Your task to perform on an android device: Go to ESPN.com Image 0: 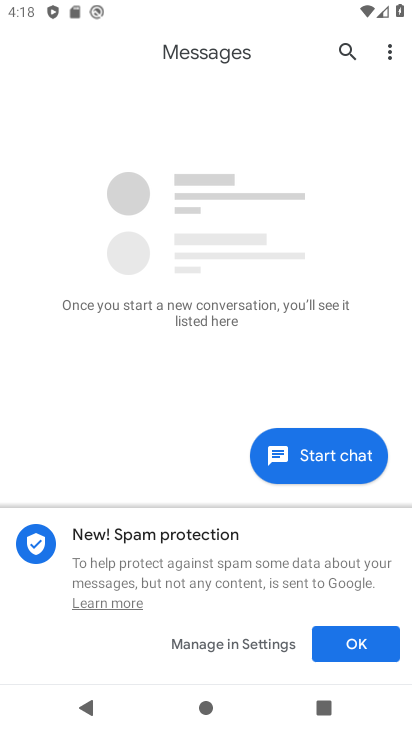
Step 0: press back button
Your task to perform on an android device: Go to ESPN.com Image 1: 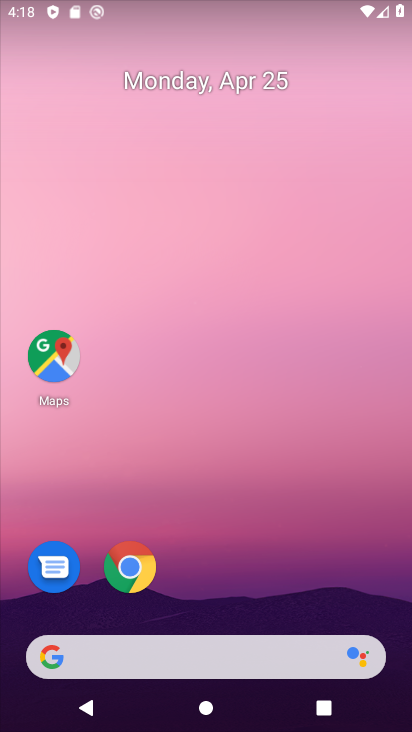
Step 1: click (119, 559)
Your task to perform on an android device: Go to ESPN.com Image 2: 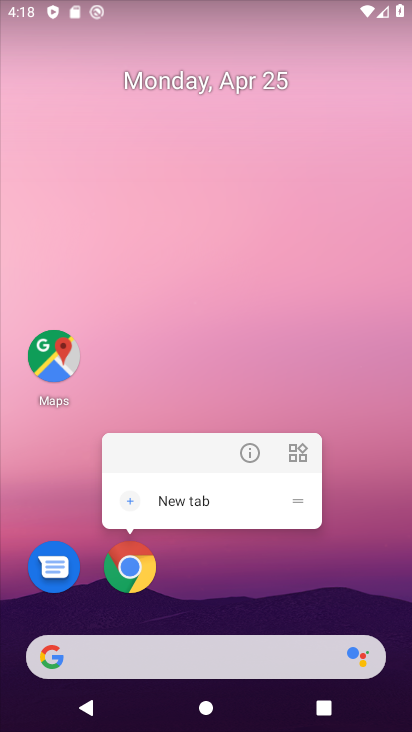
Step 2: click (136, 576)
Your task to perform on an android device: Go to ESPN.com Image 3: 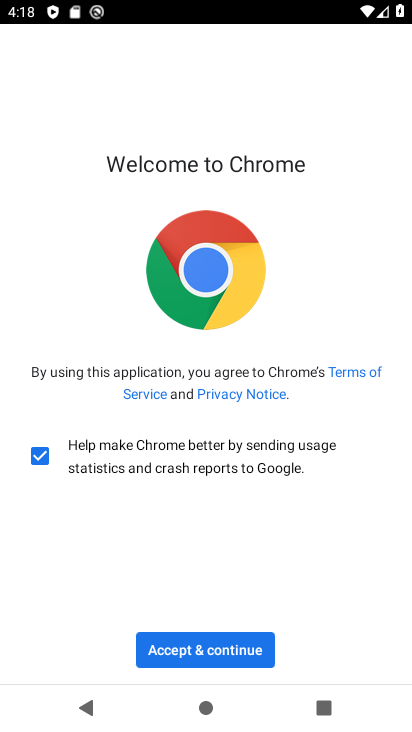
Step 3: click (179, 640)
Your task to perform on an android device: Go to ESPN.com Image 4: 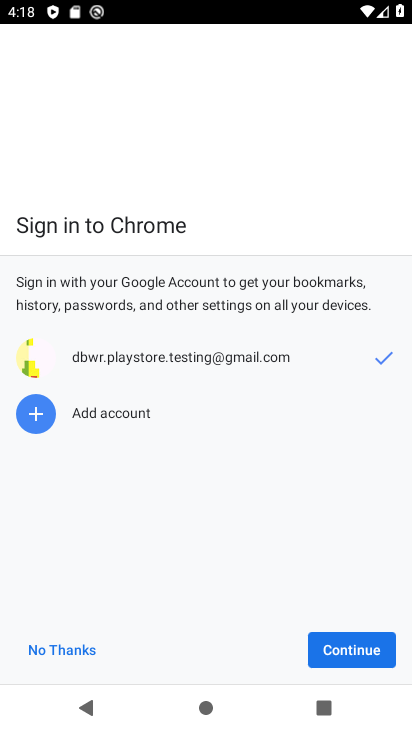
Step 4: click (372, 638)
Your task to perform on an android device: Go to ESPN.com Image 5: 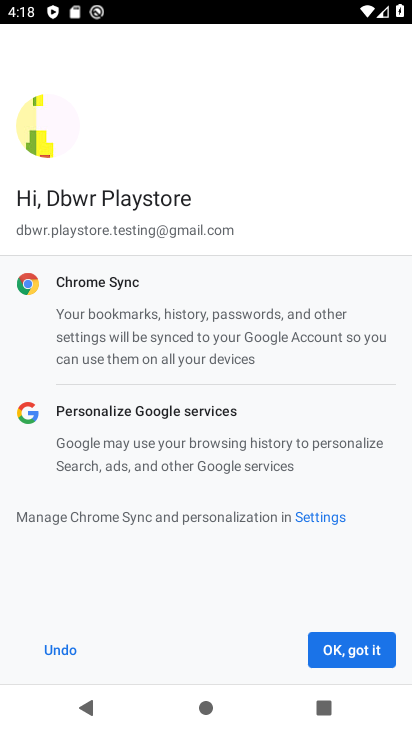
Step 5: click (350, 647)
Your task to perform on an android device: Go to ESPN.com Image 6: 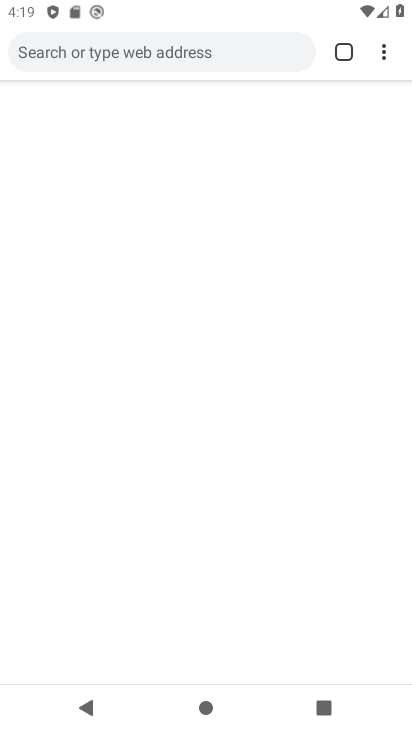
Step 6: click (170, 51)
Your task to perform on an android device: Go to ESPN.com Image 7: 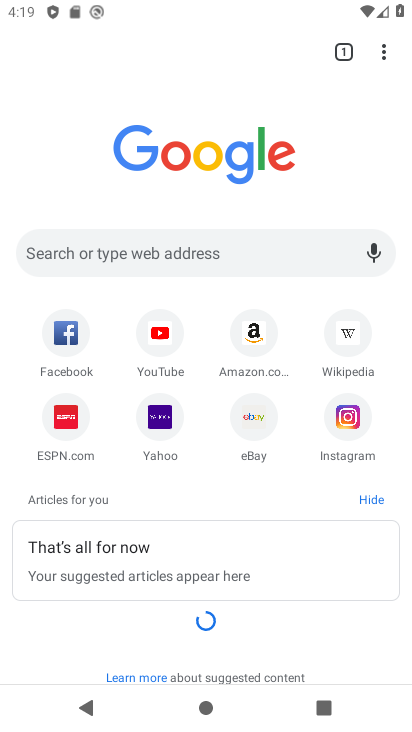
Step 7: click (124, 238)
Your task to perform on an android device: Go to ESPN.com Image 8: 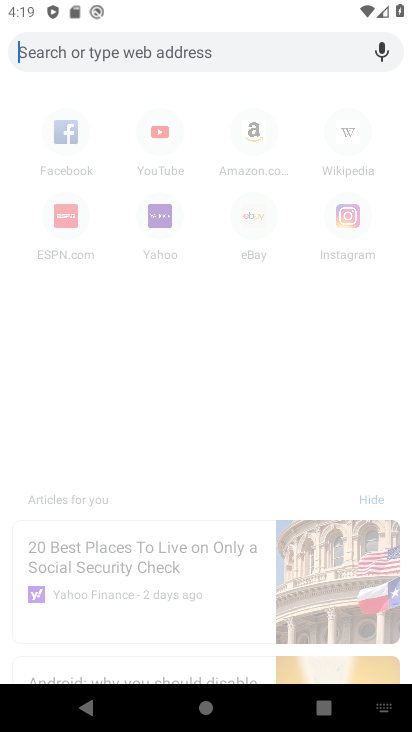
Step 8: click (70, 219)
Your task to perform on an android device: Go to ESPN.com Image 9: 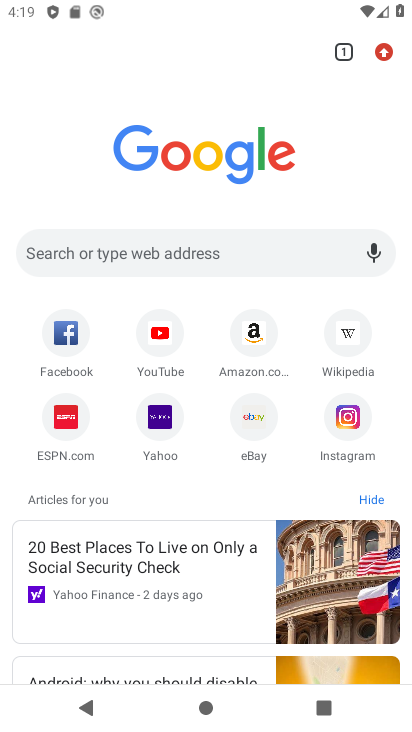
Step 9: click (70, 432)
Your task to perform on an android device: Go to ESPN.com Image 10: 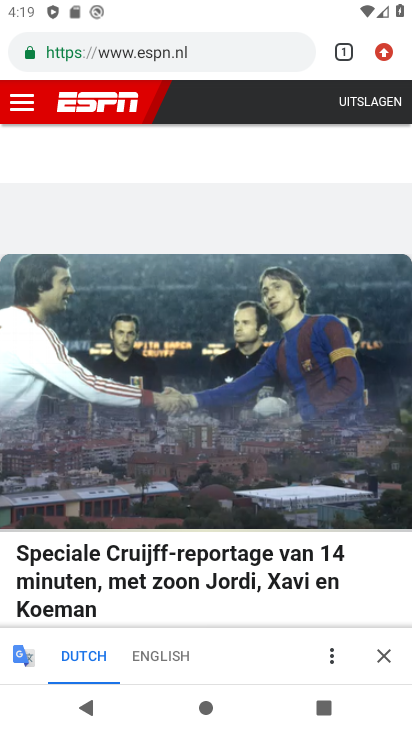
Step 10: task complete